Your task to perform on an android device: set the stopwatch Image 0: 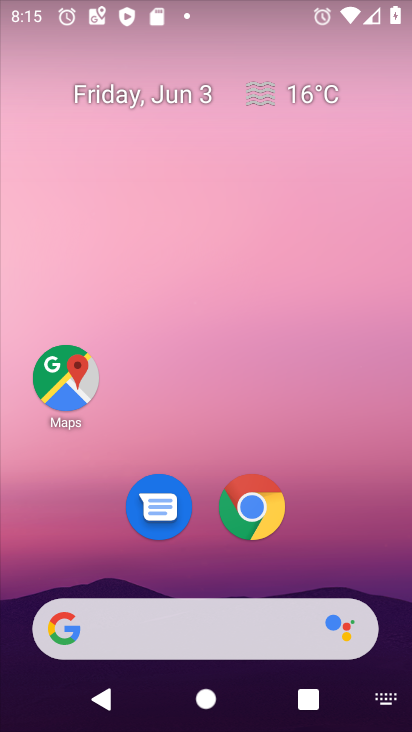
Step 0: drag from (329, 522) to (247, 36)
Your task to perform on an android device: set the stopwatch Image 1: 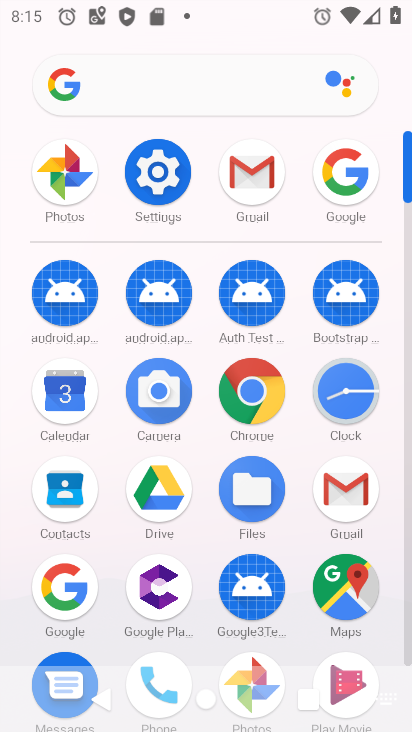
Step 1: click (343, 366)
Your task to perform on an android device: set the stopwatch Image 2: 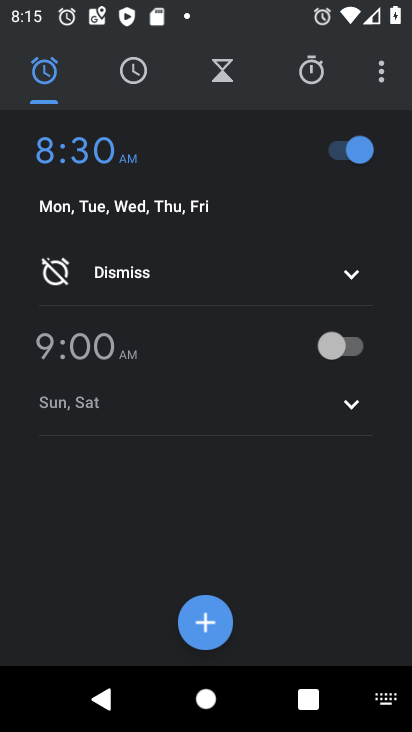
Step 2: click (317, 85)
Your task to perform on an android device: set the stopwatch Image 3: 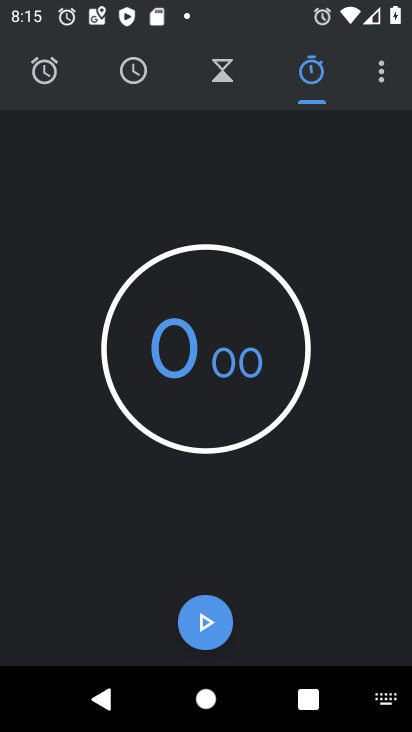
Step 3: click (219, 610)
Your task to perform on an android device: set the stopwatch Image 4: 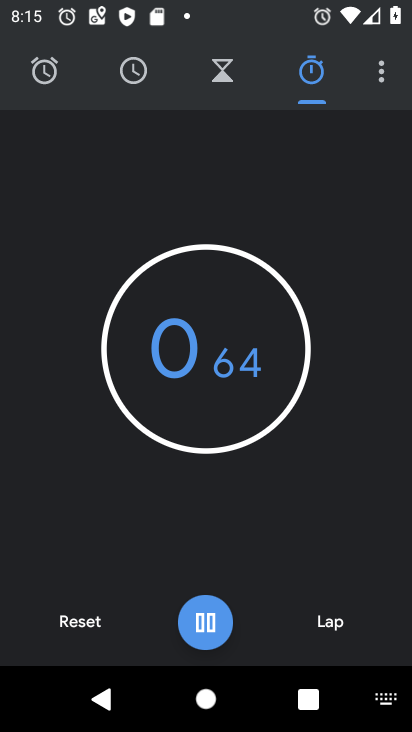
Step 4: task complete